Your task to perform on an android device: turn pop-ups off in chrome Image 0: 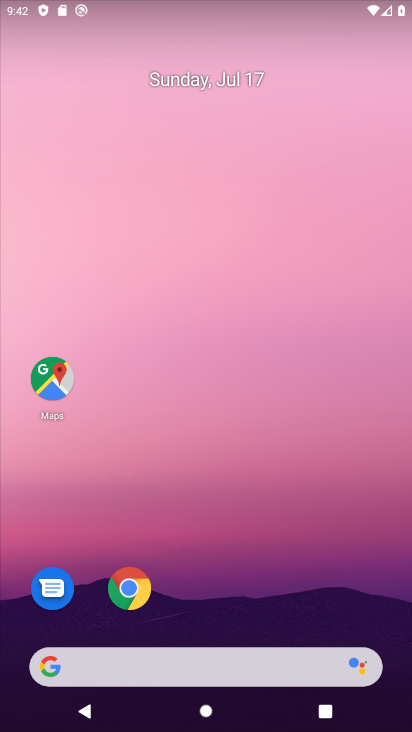
Step 0: drag from (238, 611) to (227, 175)
Your task to perform on an android device: turn pop-ups off in chrome Image 1: 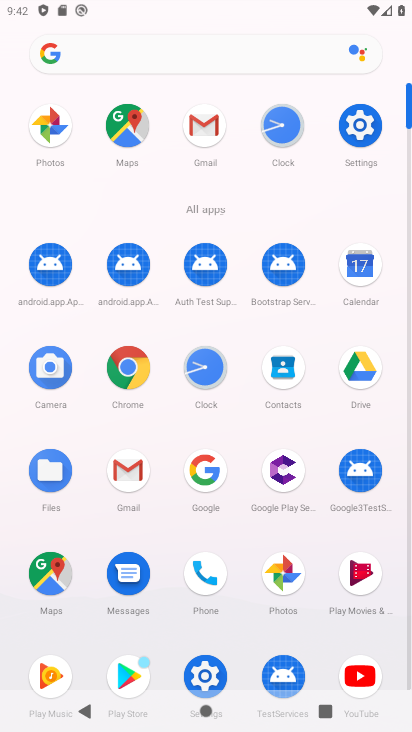
Step 1: click (120, 376)
Your task to perform on an android device: turn pop-ups off in chrome Image 2: 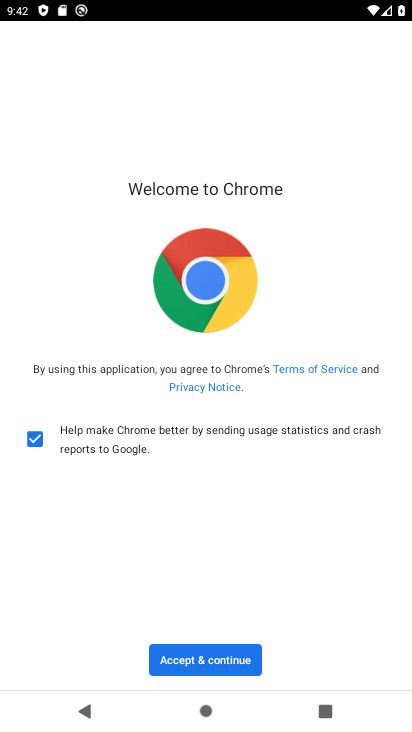
Step 2: click (179, 655)
Your task to perform on an android device: turn pop-ups off in chrome Image 3: 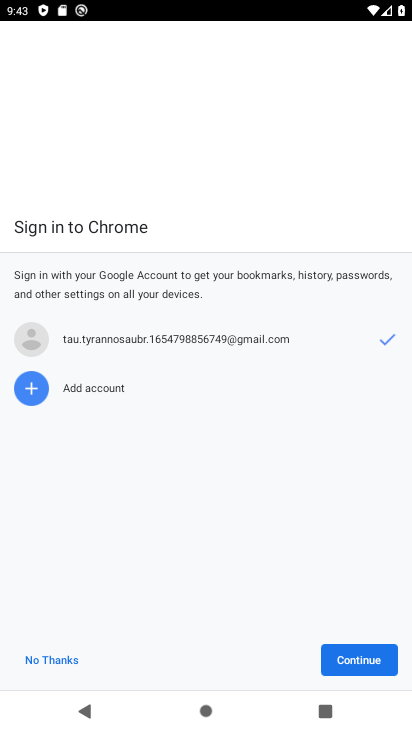
Step 3: click (371, 651)
Your task to perform on an android device: turn pop-ups off in chrome Image 4: 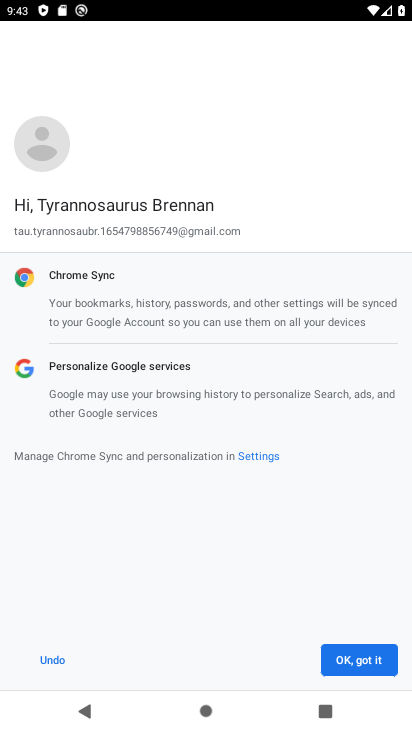
Step 4: click (380, 660)
Your task to perform on an android device: turn pop-ups off in chrome Image 5: 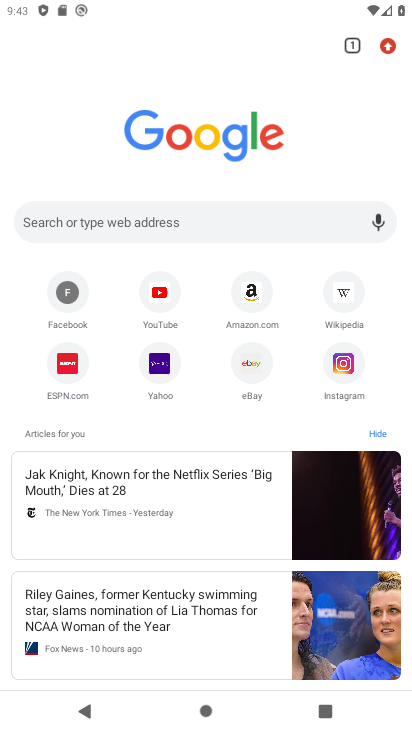
Step 5: click (390, 60)
Your task to perform on an android device: turn pop-ups off in chrome Image 6: 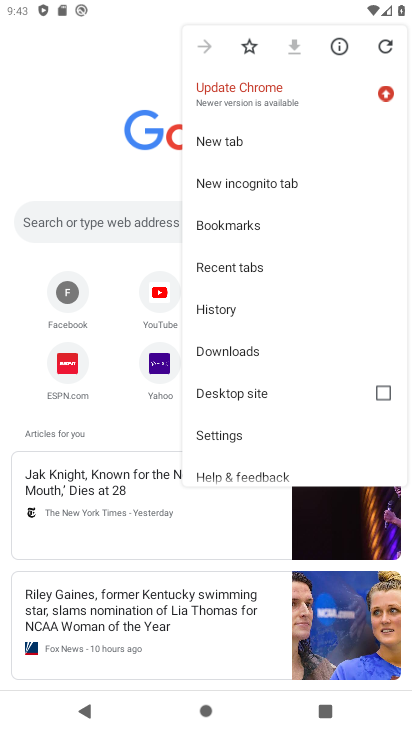
Step 6: click (257, 438)
Your task to perform on an android device: turn pop-ups off in chrome Image 7: 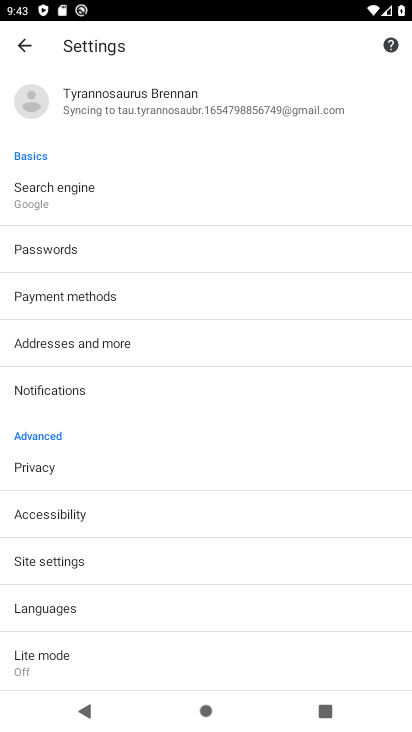
Step 7: click (76, 561)
Your task to perform on an android device: turn pop-ups off in chrome Image 8: 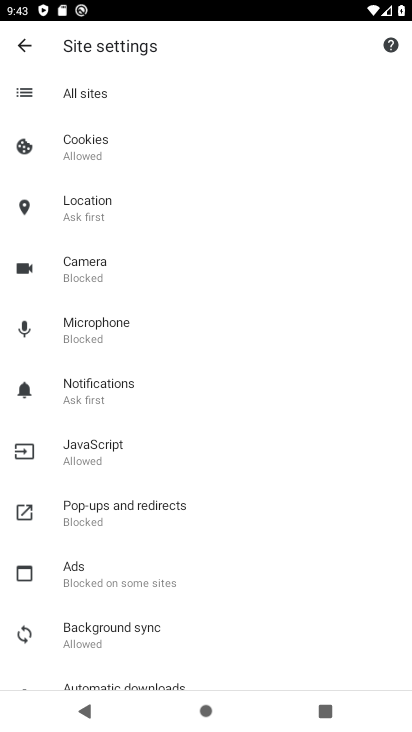
Step 8: click (147, 516)
Your task to perform on an android device: turn pop-ups off in chrome Image 9: 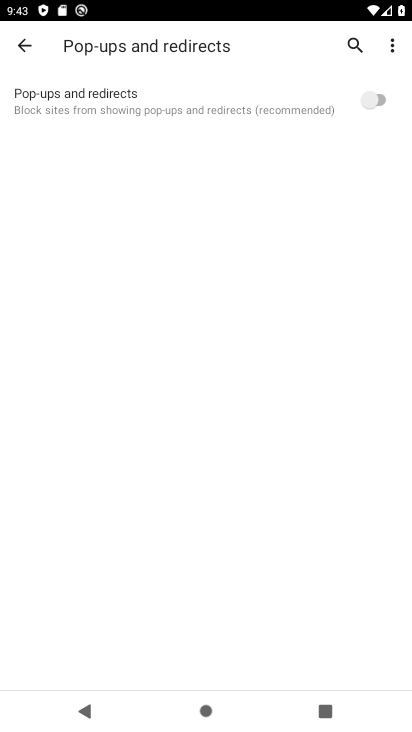
Step 9: task complete